Your task to perform on an android device: turn on bluetooth scan Image 0: 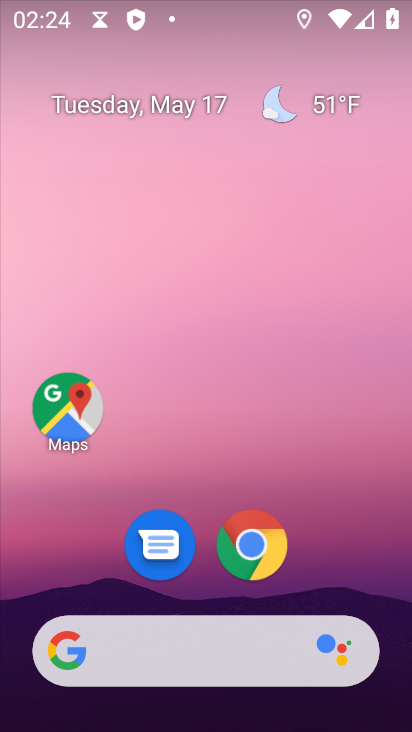
Step 0: drag from (209, 562) to (225, 112)
Your task to perform on an android device: turn on bluetooth scan Image 1: 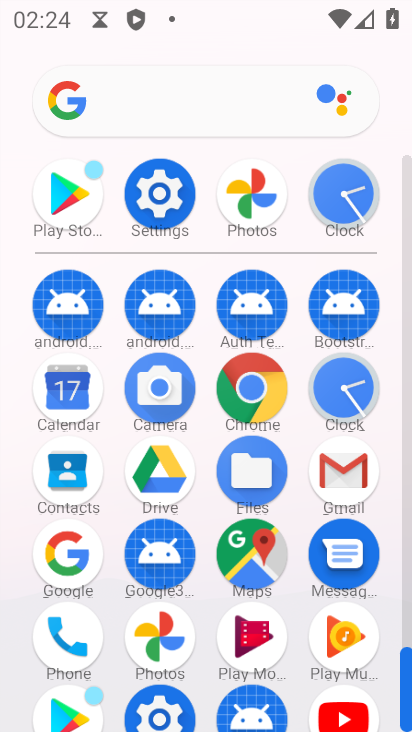
Step 1: click (148, 183)
Your task to perform on an android device: turn on bluetooth scan Image 2: 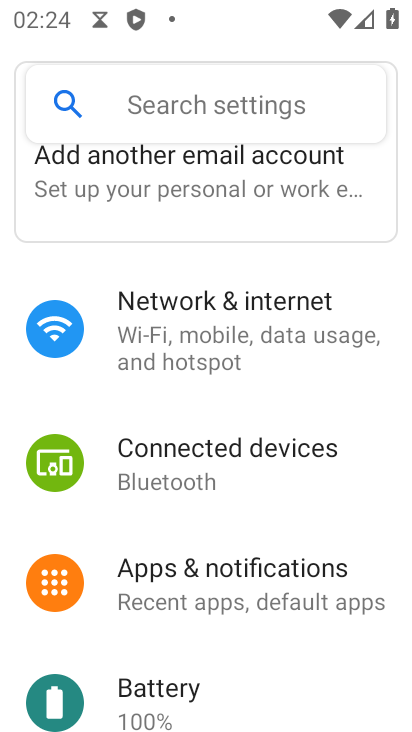
Step 2: click (214, 474)
Your task to perform on an android device: turn on bluetooth scan Image 3: 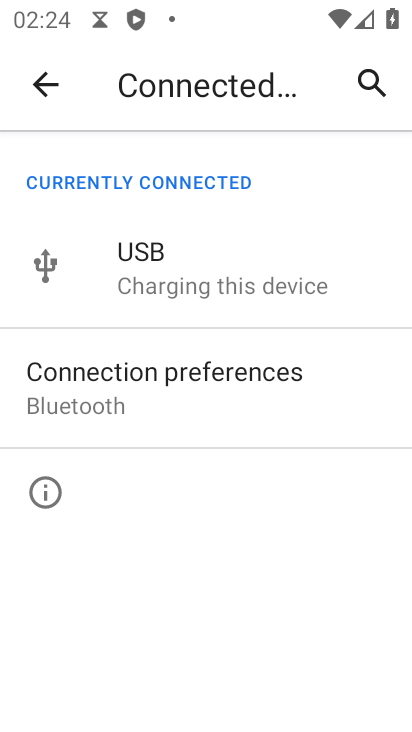
Step 3: click (149, 377)
Your task to perform on an android device: turn on bluetooth scan Image 4: 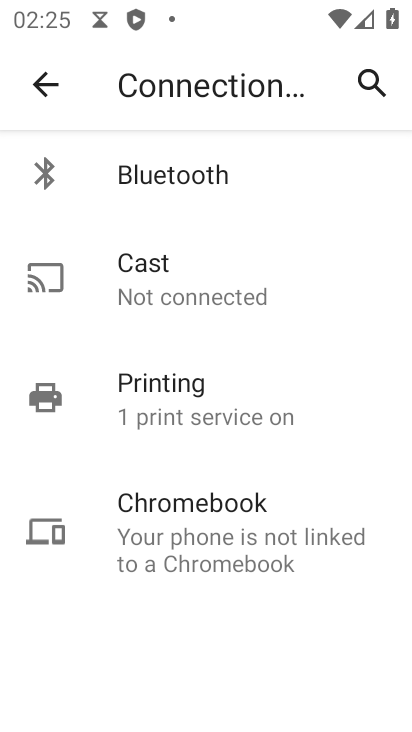
Step 4: click (181, 181)
Your task to perform on an android device: turn on bluetooth scan Image 5: 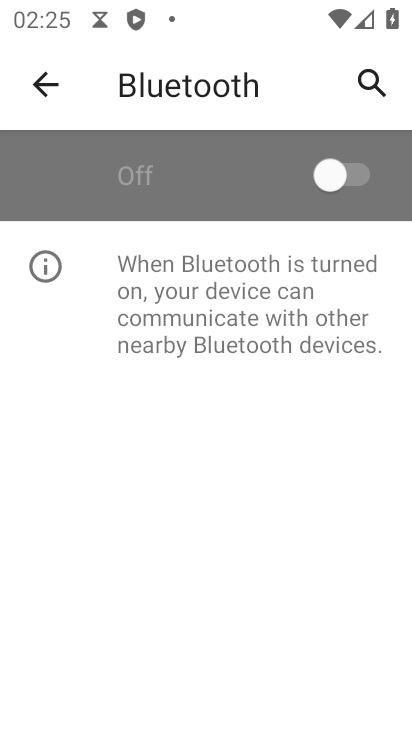
Step 5: click (343, 180)
Your task to perform on an android device: turn on bluetooth scan Image 6: 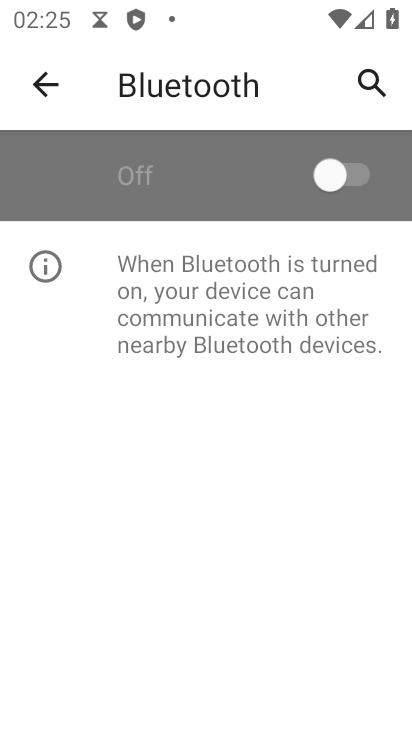
Step 6: click (343, 180)
Your task to perform on an android device: turn on bluetooth scan Image 7: 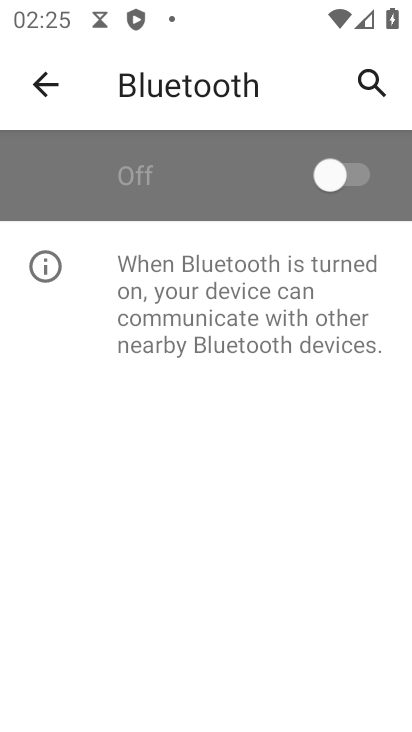
Step 7: task complete